Your task to perform on an android device: snooze an email in the gmail app Image 0: 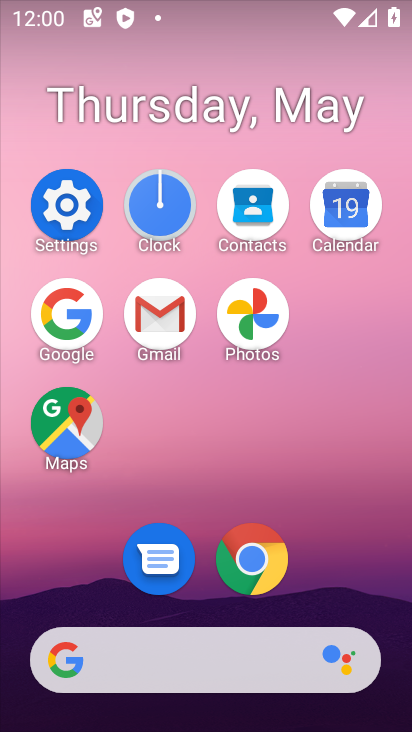
Step 0: click (164, 327)
Your task to perform on an android device: snooze an email in the gmail app Image 1: 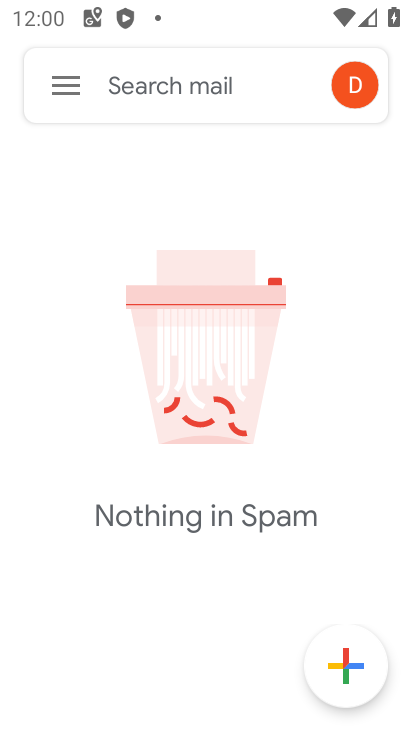
Step 1: click (63, 92)
Your task to perform on an android device: snooze an email in the gmail app Image 2: 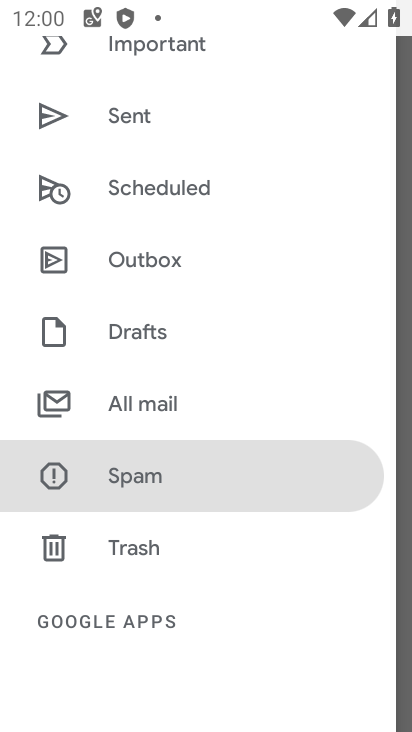
Step 2: click (199, 402)
Your task to perform on an android device: snooze an email in the gmail app Image 3: 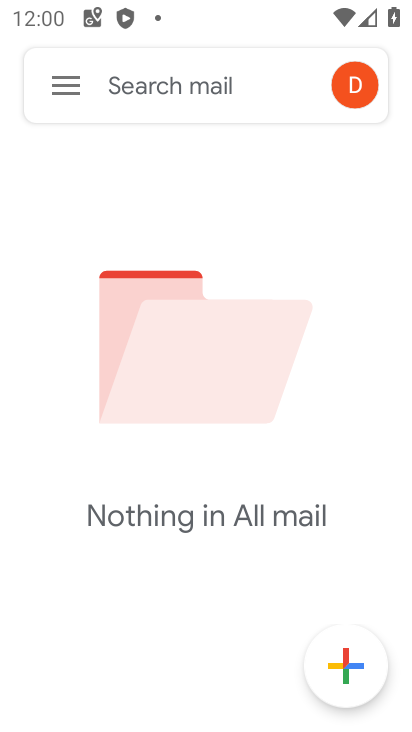
Step 3: task complete